Your task to perform on an android device: Open calendar and show me the second week of next month Image 0: 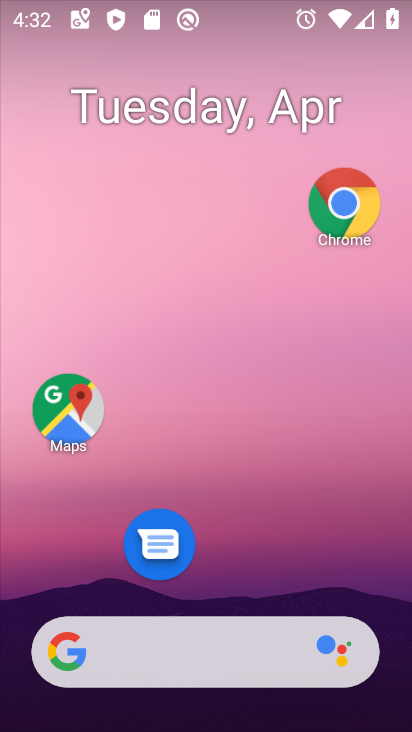
Step 0: drag from (212, 561) to (309, 13)
Your task to perform on an android device: Open calendar and show me the second week of next month Image 1: 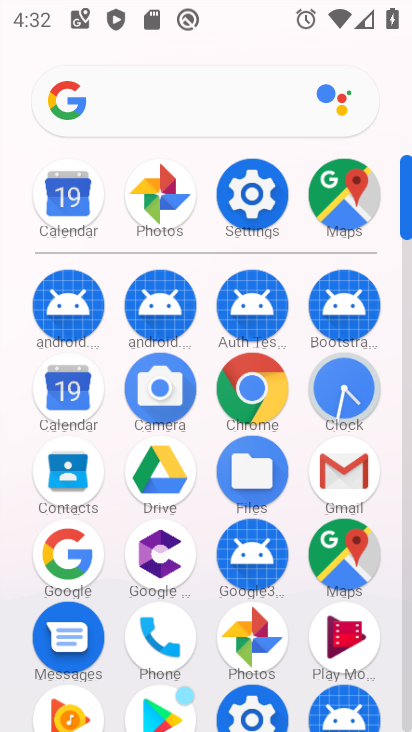
Step 1: click (62, 384)
Your task to perform on an android device: Open calendar and show me the second week of next month Image 2: 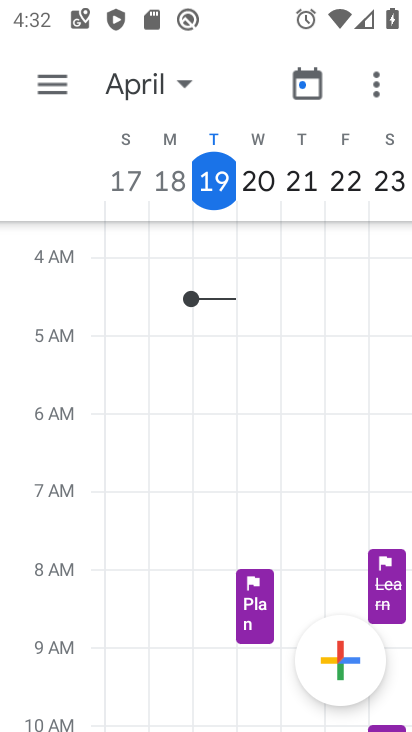
Step 2: click (199, 434)
Your task to perform on an android device: Open calendar and show me the second week of next month Image 3: 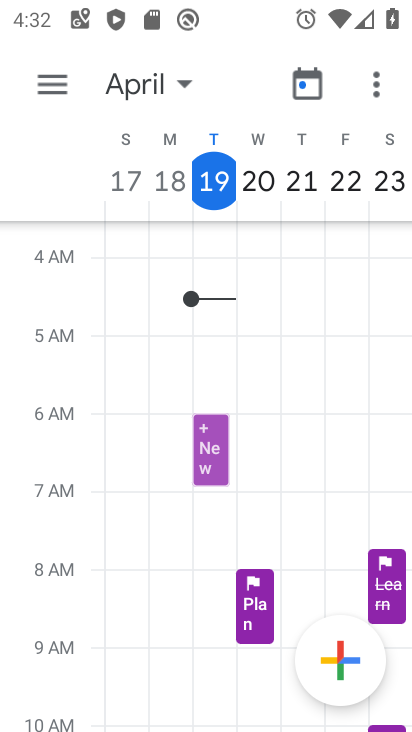
Step 3: click (62, 79)
Your task to perform on an android device: Open calendar and show me the second week of next month Image 4: 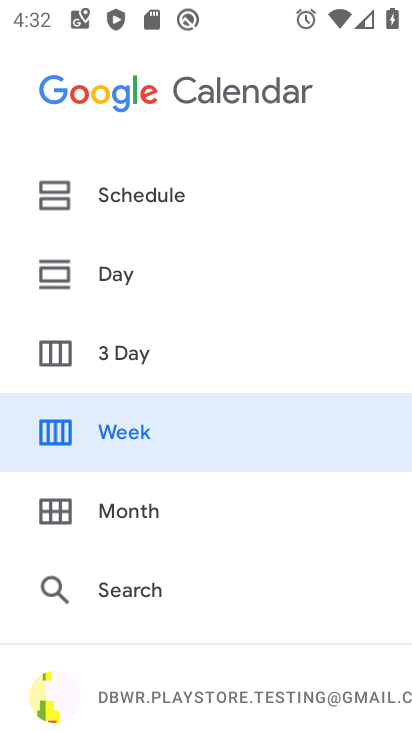
Step 4: click (153, 450)
Your task to perform on an android device: Open calendar and show me the second week of next month Image 5: 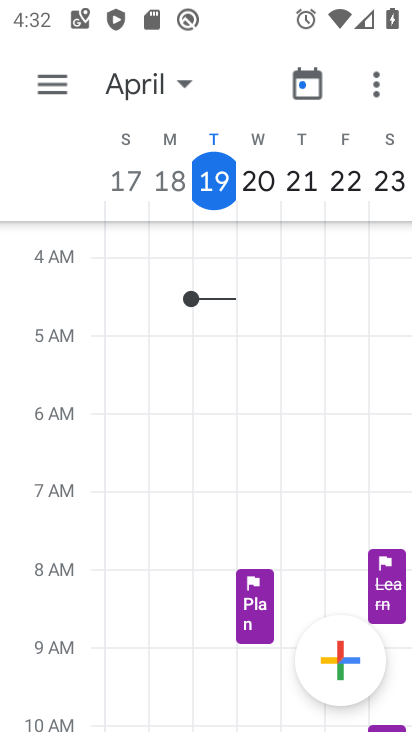
Step 5: task complete